Your task to perform on an android device: Do I have any events this weekend? Image 0: 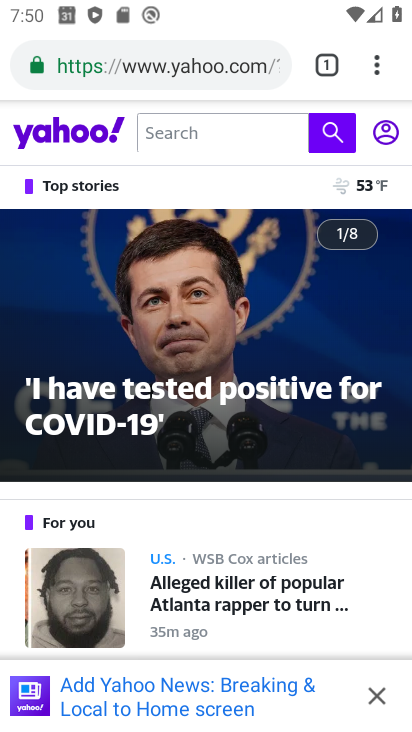
Step 0: press home button
Your task to perform on an android device: Do I have any events this weekend? Image 1: 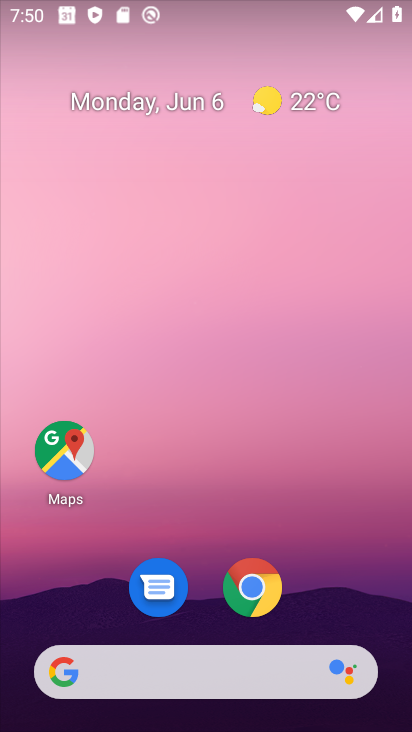
Step 1: drag from (242, 647) to (241, 370)
Your task to perform on an android device: Do I have any events this weekend? Image 2: 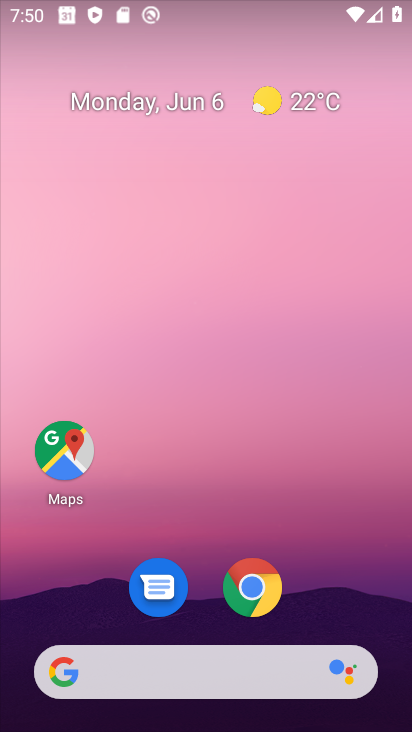
Step 2: drag from (222, 660) to (168, 272)
Your task to perform on an android device: Do I have any events this weekend? Image 3: 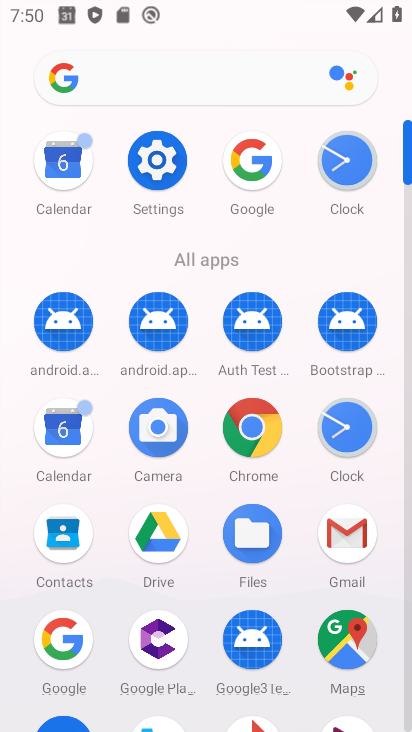
Step 3: click (68, 429)
Your task to perform on an android device: Do I have any events this weekend? Image 4: 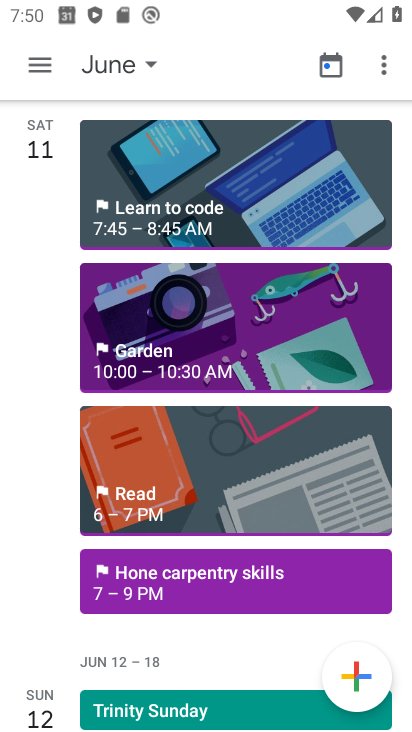
Step 4: task complete